Your task to perform on an android device: empty trash in google photos Image 0: 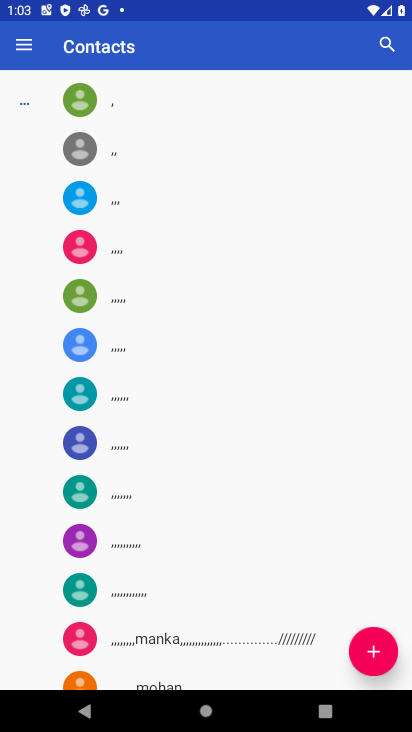
Step 0: press home button
Your task to perform on an android device: empty trash in google photos Image 1: 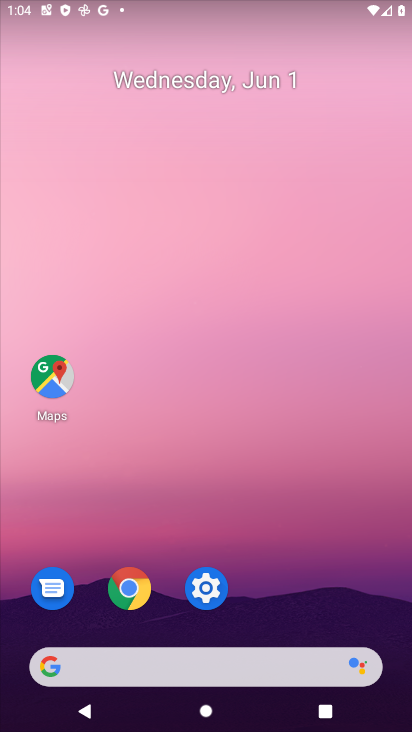
Step 1: drag from (223, 685) to (270, 478)
Your task to perform on an android device: empty trash in google photos Image 2: 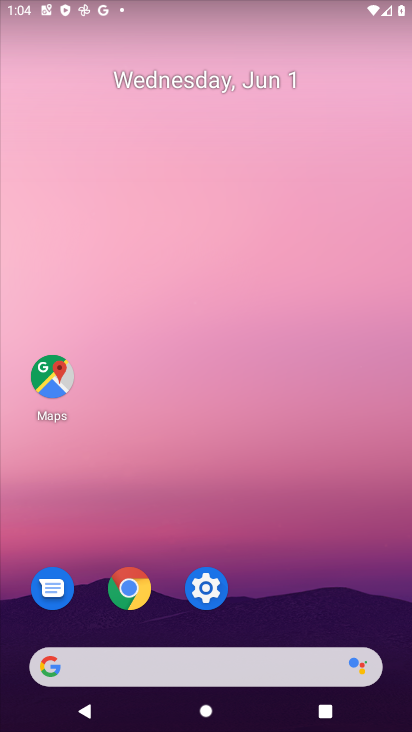
Step 2: drag from (245, 694) to (265, 269)
Your task to perform on an android device: empty trash in google photos Image 3: 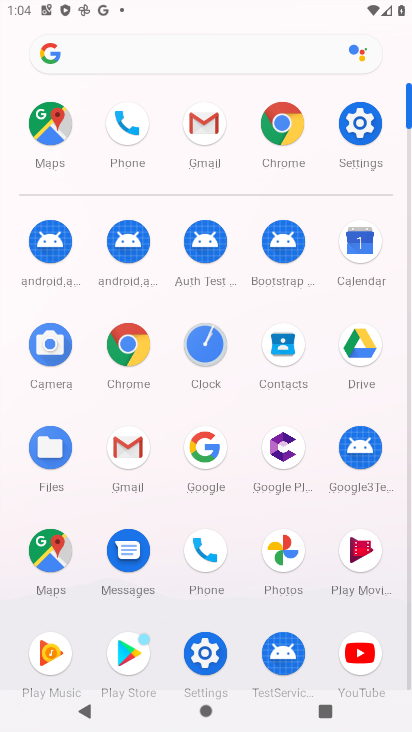
Step 3: click (285, 539)
Your task to perform on an android device: empty trash in google photos Image 4: 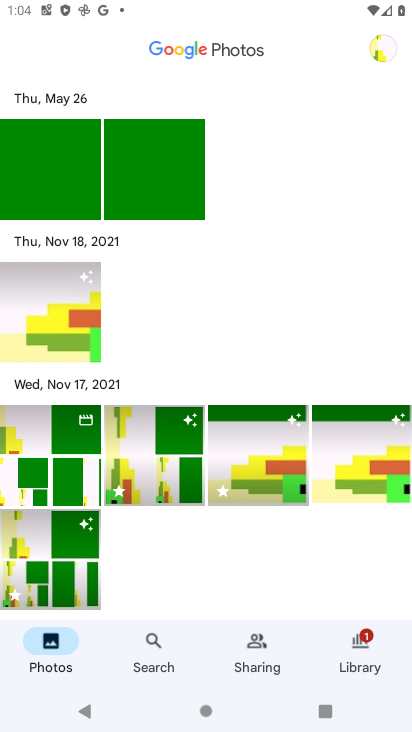
Step 4: click (154, 645)
Your task to perform on an android device: empty trash in google photos Image 5: 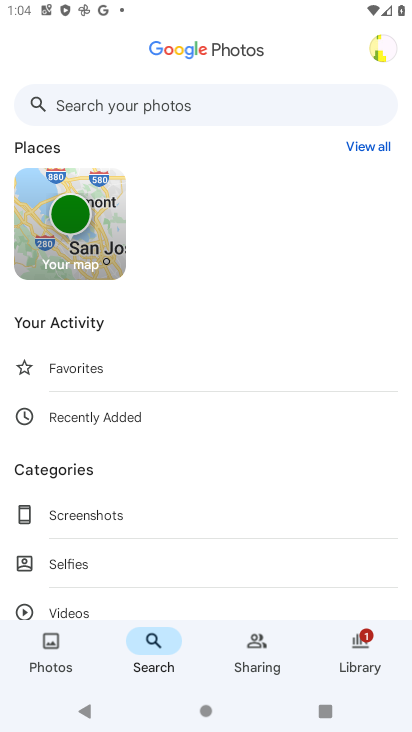
Step 5: click (173, 90)
Your task to perform on an android device: empty trash in google photos Image 6: 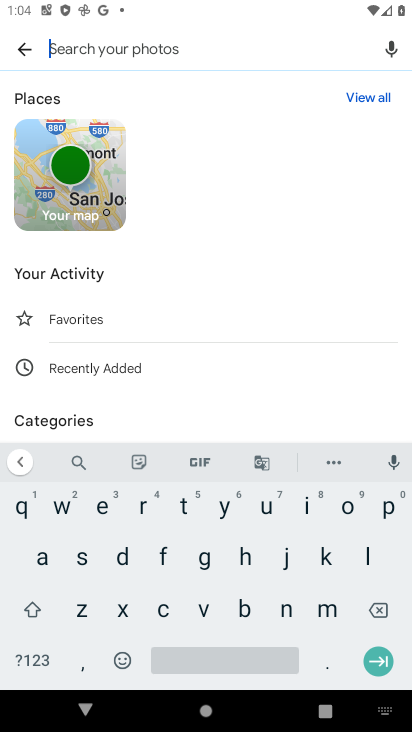
Step 6: click (181, 502)
Your task to perform on an android device: empty trash in google photos Image 7: 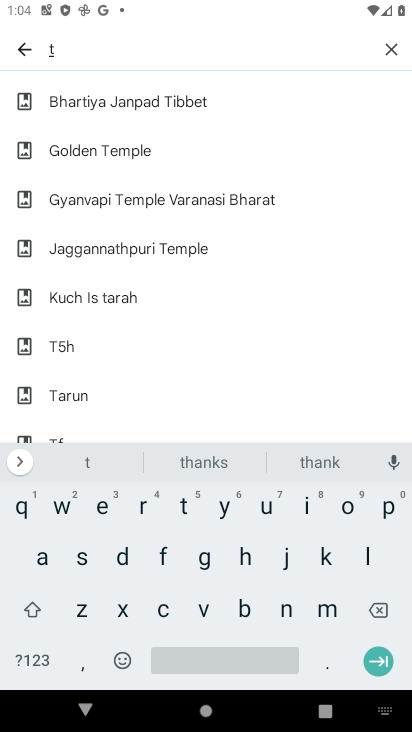
Step 7: click (141, 504)
Your task to perform on an android device: empty trash in google photos Image 8: 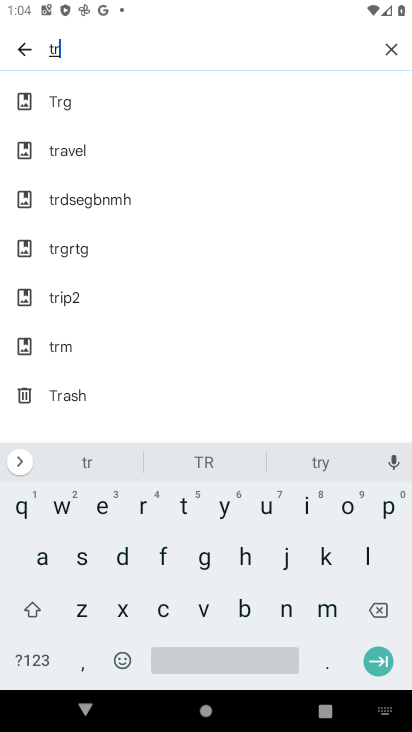
Step 8: click (44, 557)
Your task to perform on an android device: empty trash in google photos Image 9: 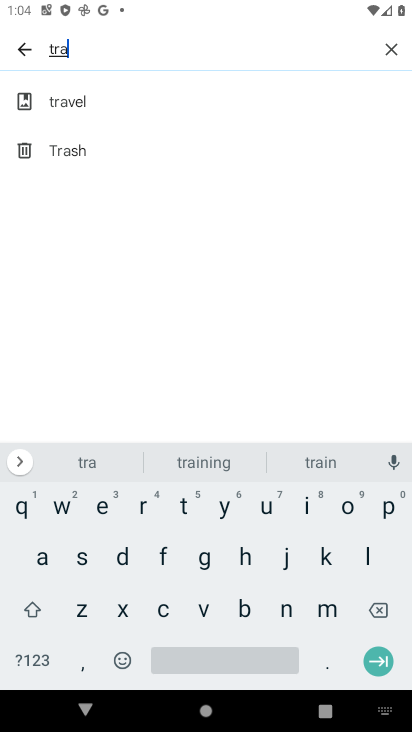
Step 9: click (64, 153)
Your task to perform on an android device: empty trash in google photos Image 10: 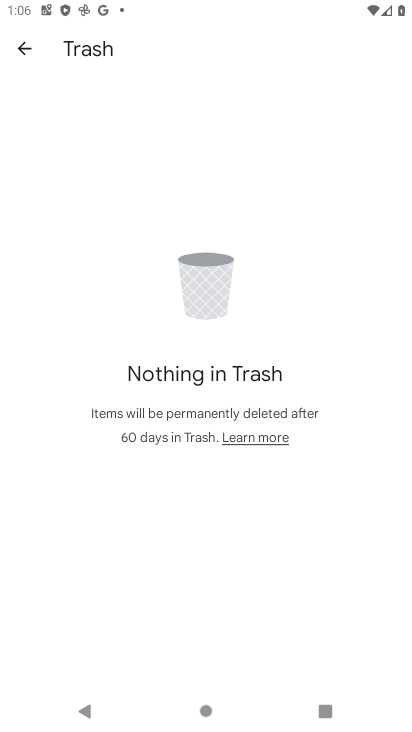
Step 10: task complete